Your task to perform on an android device: change text size in settings app Image 0: 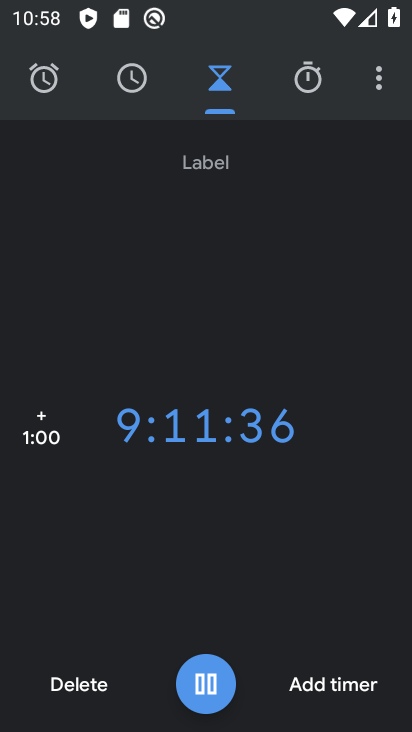
Step 0: press home button
Your task to perform on an android device: change text size in settings app Image 1: 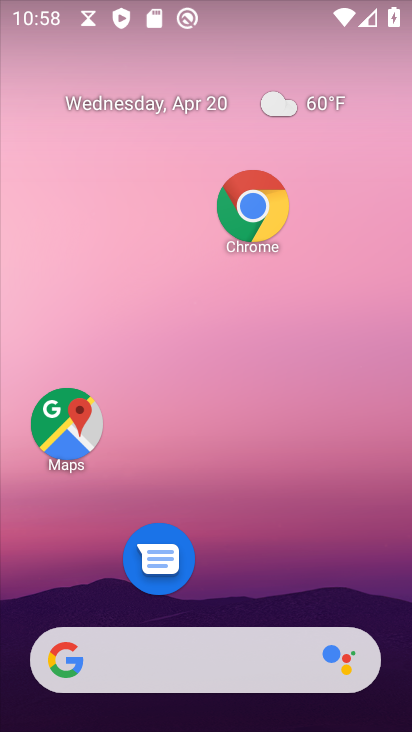
Step 1: drag from (330, 653) to (315, 4)
Your task to perform on an android device: change text size in settings app Image 2: 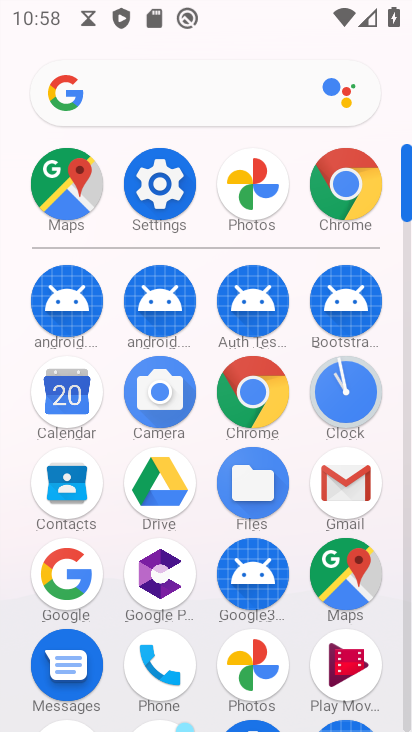
Step 2: drag from (208, 513) to (211, 91)
Your task to perform on an android device: change text size in settings app Image 3: 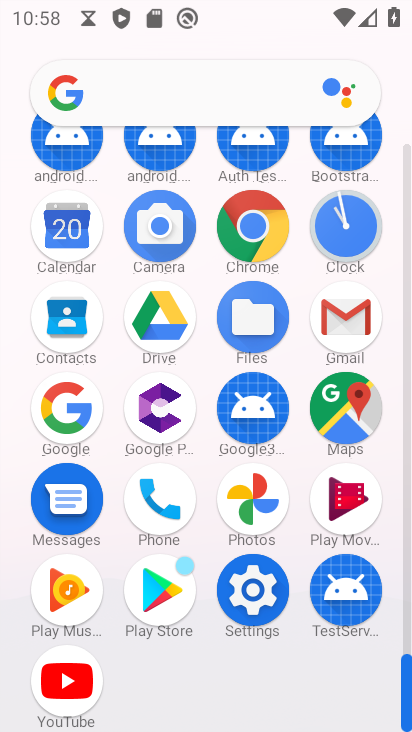
Step 3: click (255, 588)
Your task to perform on an android device: change text size in settings app Image 4: 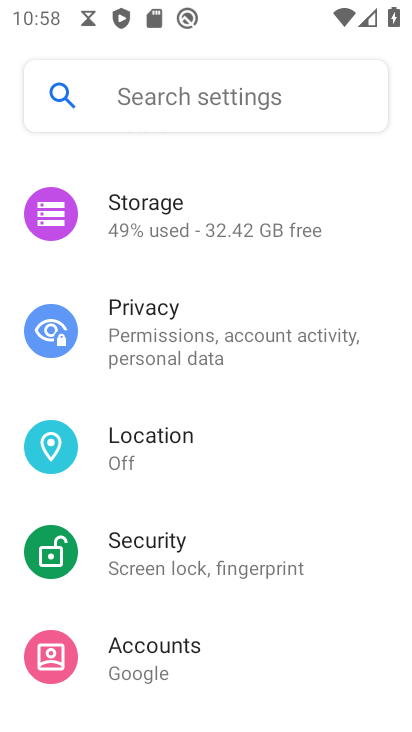
Step 4: drag from (274, 644) to (277, 102)
Your task to perform on an android device: change text size in settings app Image 5: 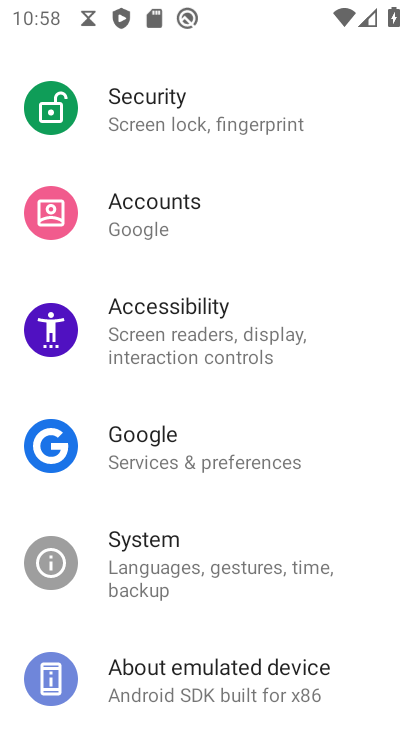
Step 5: click (286, 144)
Your task to perform on an android device: change text size in settings app Image 6: 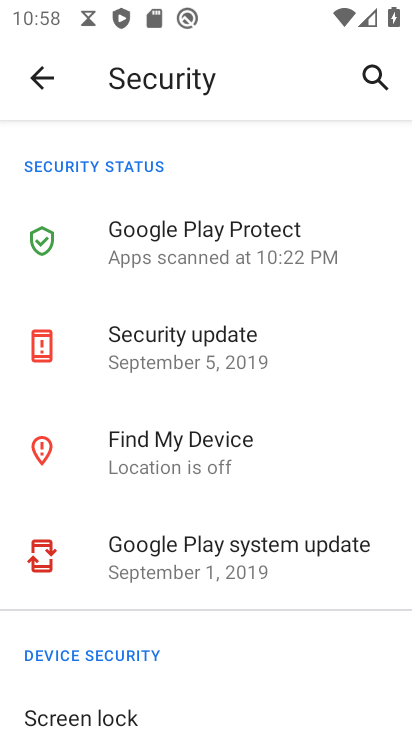
Step 6: press back button
Your task to perform on an android device: change text size in settings app Image 7: 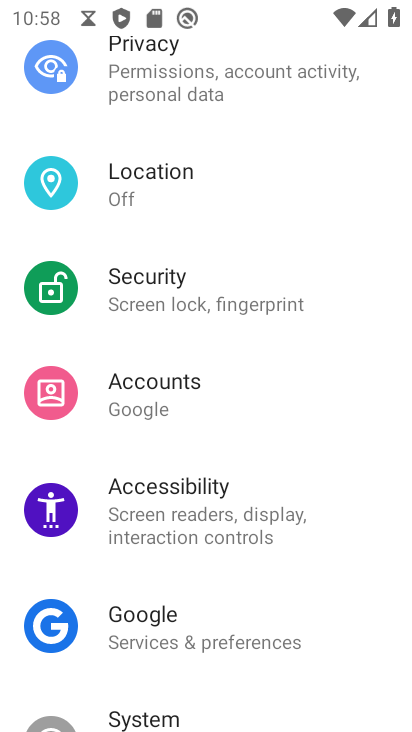
Step 7: drag from (332, 678) to (319, 229)
Your task to perform on an android device: change text size in settings app Image 8: 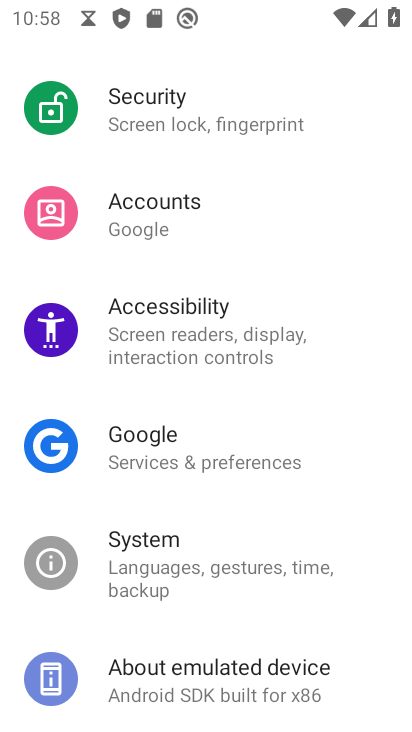
Step 8: click (198, 326)
Your task to perform on an android device: change text size in settings app Image 9: 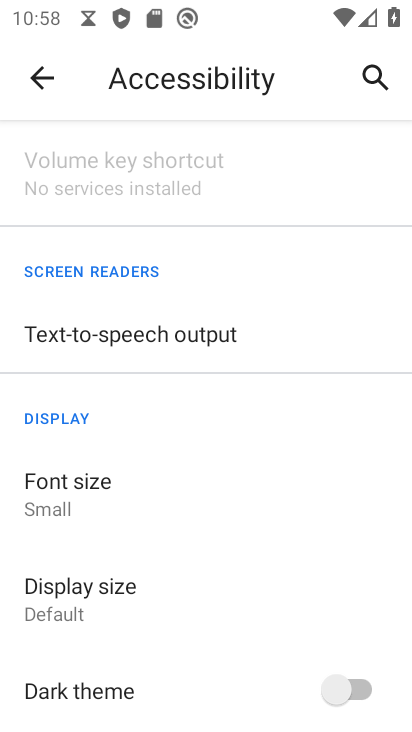
Step 9: drag from (179, 631) to (142, 115)
Your task to perform on an android device: change text size in settings app Image 10: 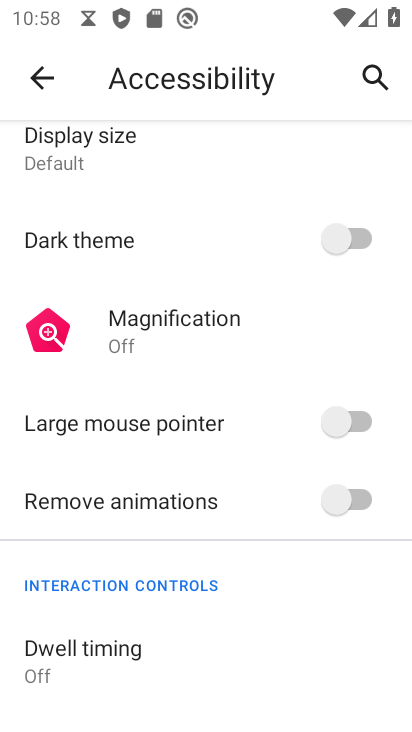
Step 10: drag from (175, 651) to (200, 725)
Your task to perform on an android device: change text size in settings app Image 11: 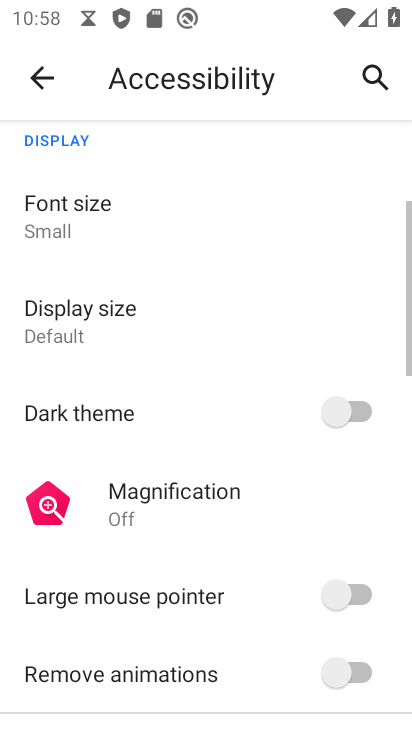
Step 11: drag from (182, 269) to (221, 655)
Your task to perform on an android device: change text size in settings app Image 12: 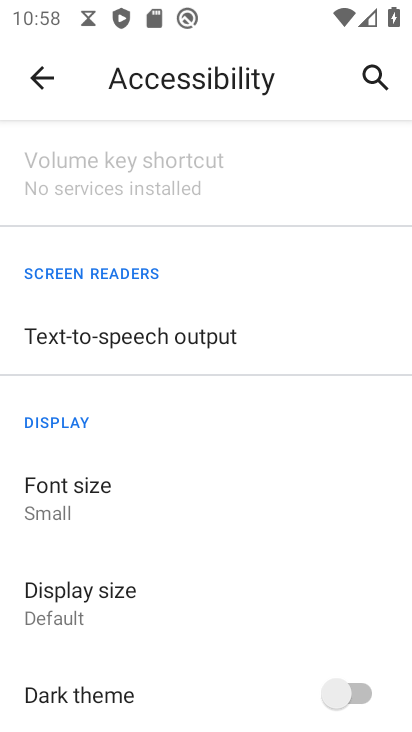
Step 12: click (114, 501)
Your task to perform on an android device: change text size in settings app Image 13: 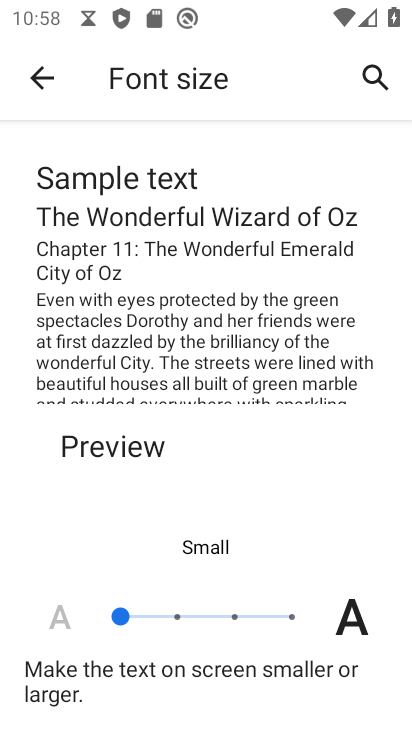
Step 13: click (171, 617)
Your task to perform on an android device: change text size in settings app Image 14: 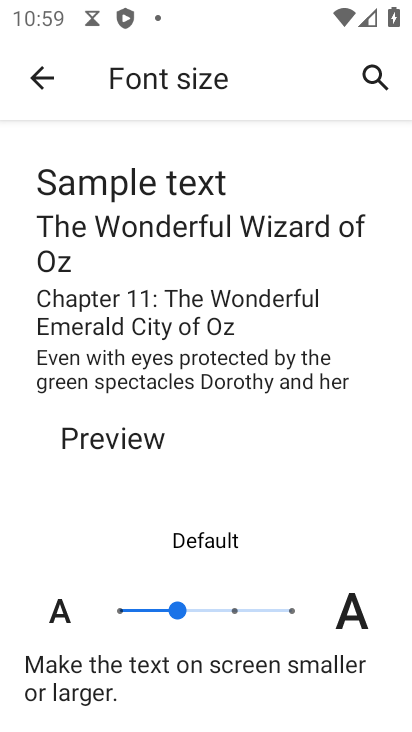
Step 14: task complete